Your task to perform on an android device: What's the weather going to be this weekend? Image 0: 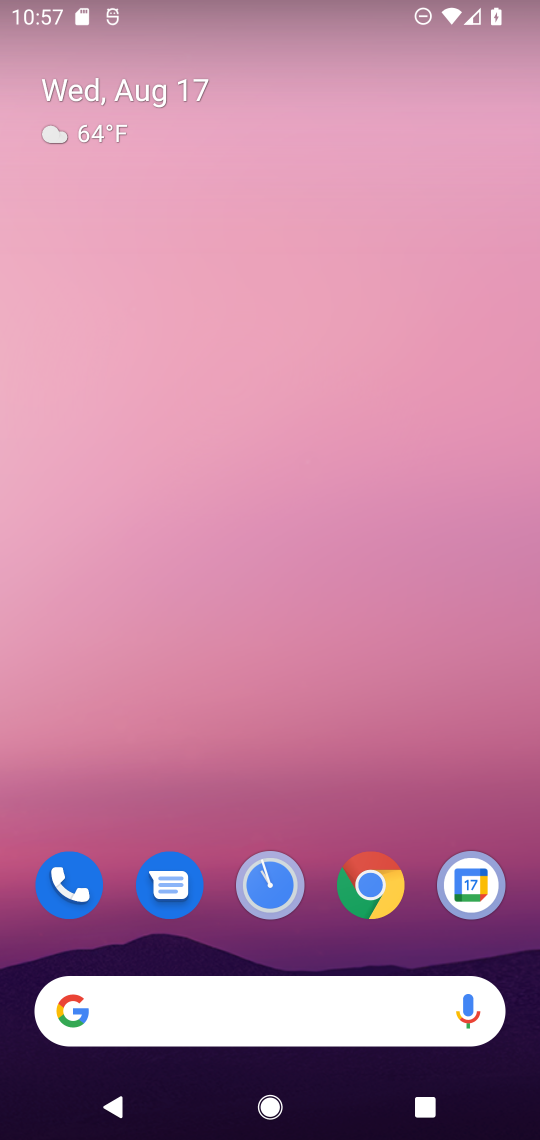
Step 0: click (78, 135)
Your task to perform on an android device: What's the weather going to be this weekend? Image 1: 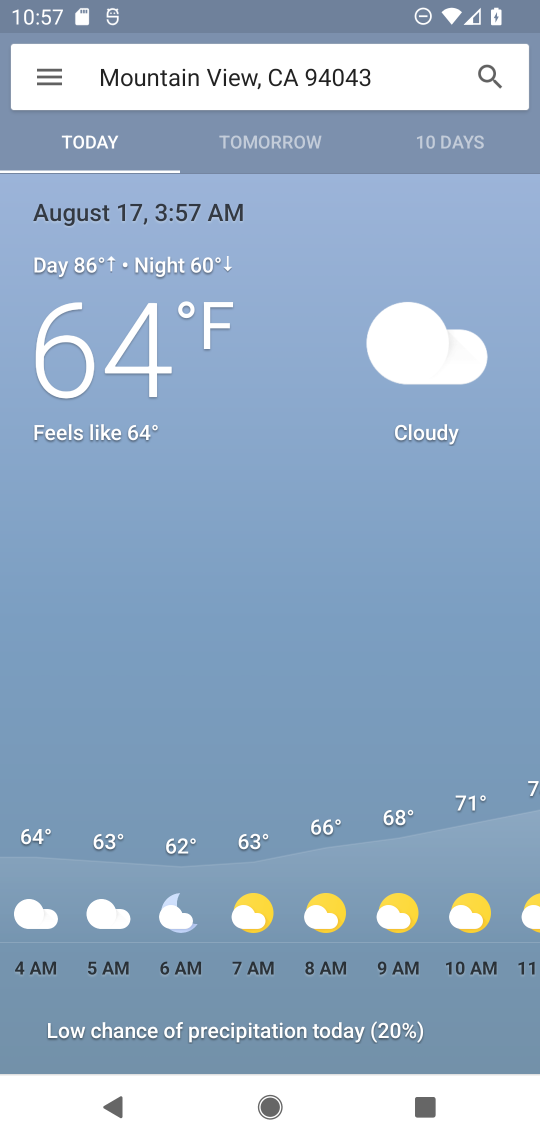
Step 1: click (439, 131)
Your task to perform on an android device: What's the weather going to be this weekend? Image 2: 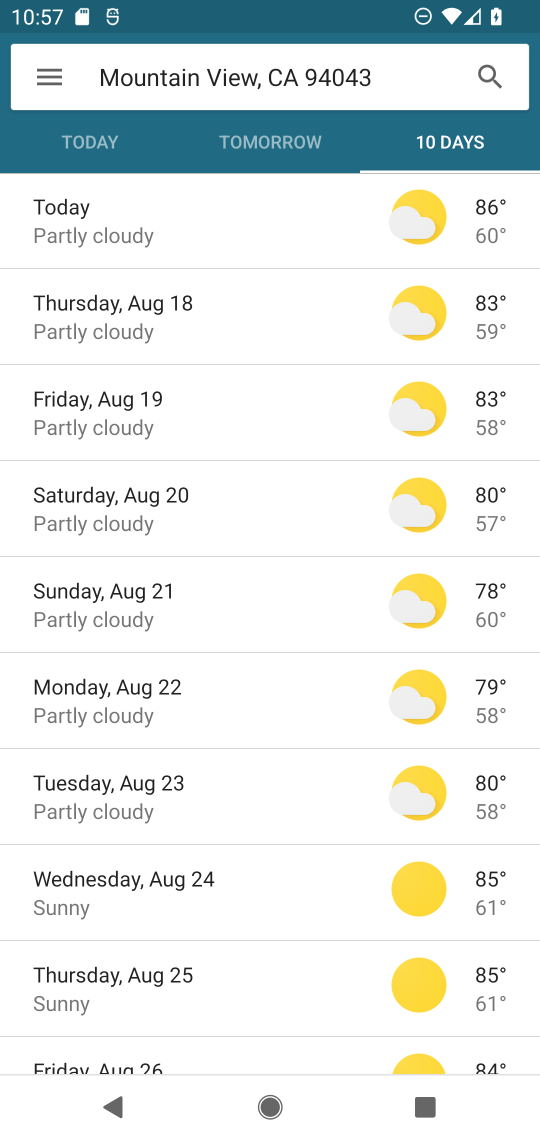
Step 2: task complete